Your task to perform on an android device: Search for vegetarian restaurants on Maps Image 0: 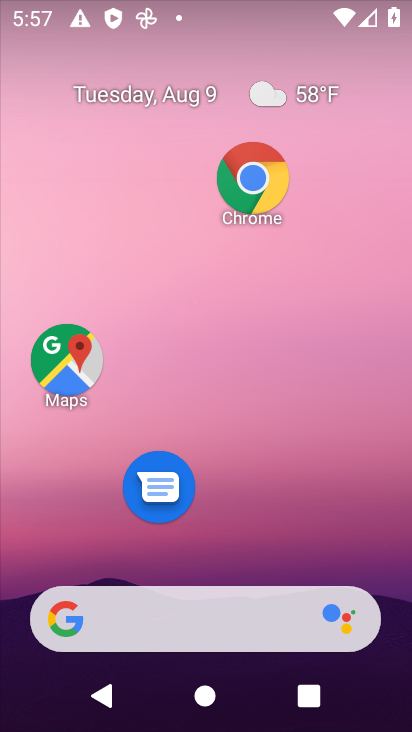
Step 0: click (79, 378)
Your task to perform on an android device: Search for vegetarian restaurants on Maps Image 1: 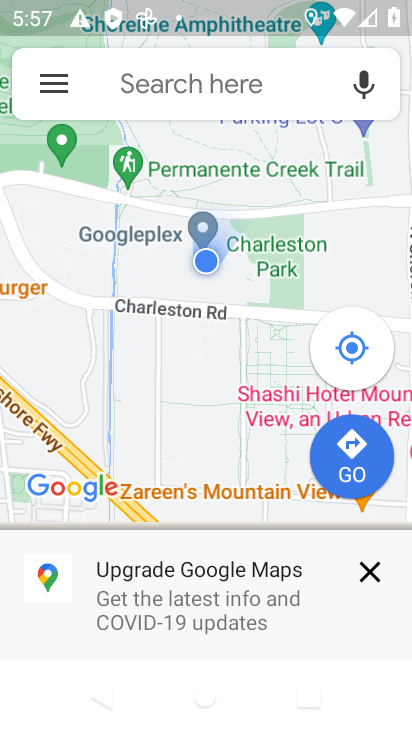
Step 1: click (144, 93)
Your task to perform on an android device: Search for vegetarian restaurants on Maps Image 2: 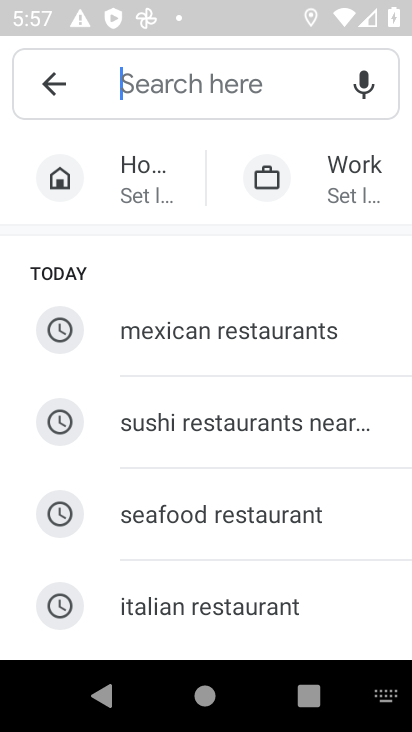
Step 2: type "vegetarian restaurant"
Your task to perform on an android device: Search for vegetarian restaurants on Maps Image 3: 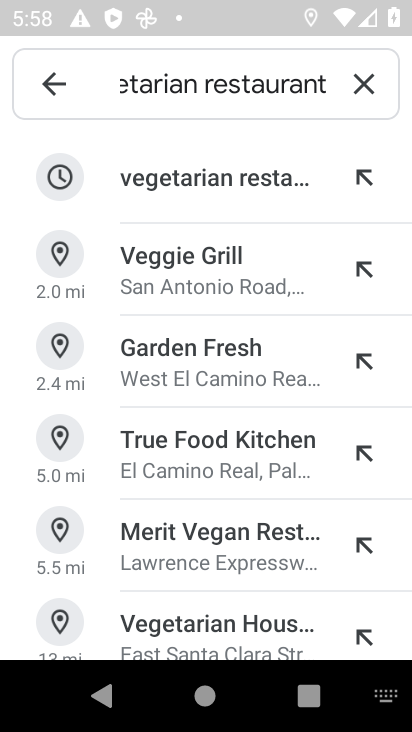
Step 3: click (218, 174)
Your task to perform on an android device: Search for vegetarian restaurants on Maps Image 4: 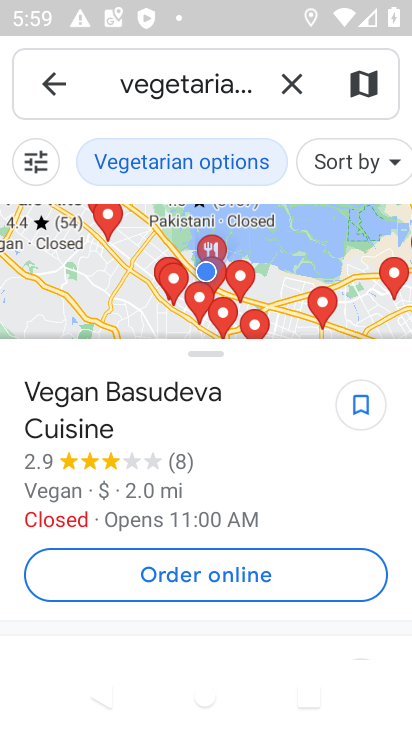
Step 4: task complete